Your task to perform on an android device: see tabs open on other devices in the chrome app Image 0: 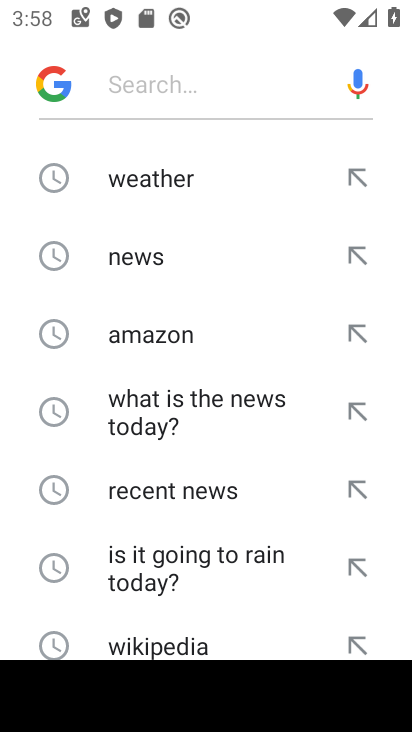
Step 0: press home button
Your task to perform on an android device: see tabs open on other devices in the chrome app Image 1: 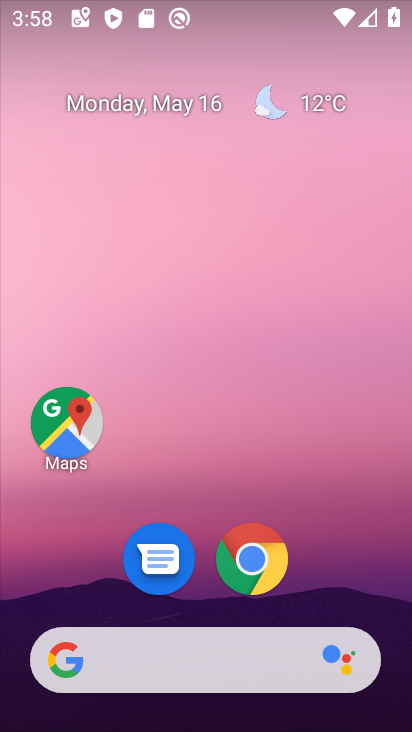
Step 1: drag from (327, 568) to (368, 194)
Your task to perform on an android device: see tabs open on other devices in the chrome app Image 2: 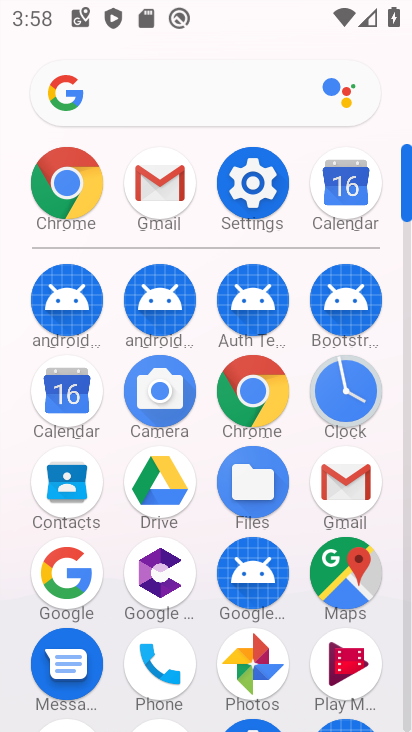
Step 2: click (76, 197)
Your task to perform on an android device: see tabs open on other devices in the chrome app Image 3: 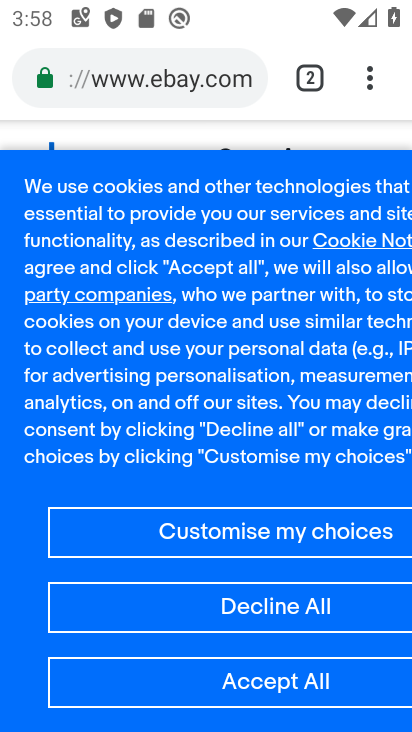
Step 3: click (380, 79)
Your task to perform on an android device: see tabs open on other devices in the chrome app Image 4: 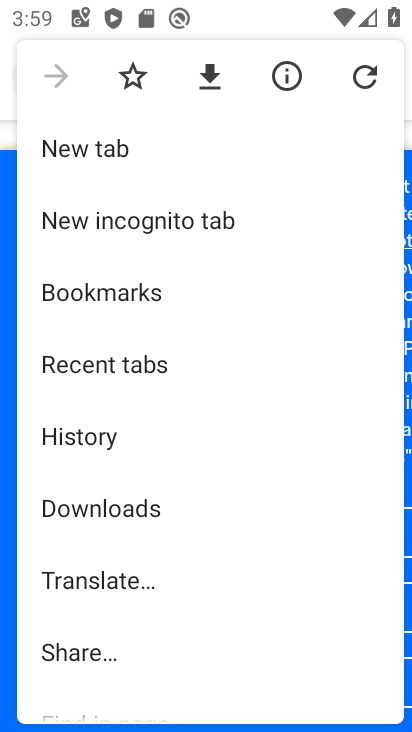
Step 4: drag from (193, 572) to (229, 126)
Your task to perform on an android device: see tabs open on other devices in the chrome app Image 5: 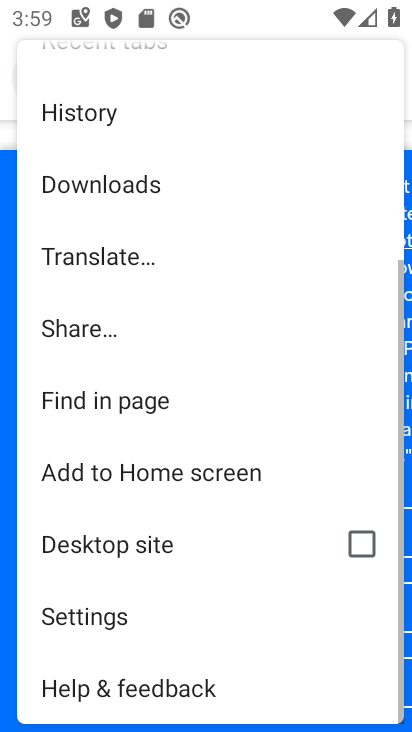
Step 5: click (116, 609)
Your task to perform on an android device: see tabs open on other devices in the chrome app Image 6: 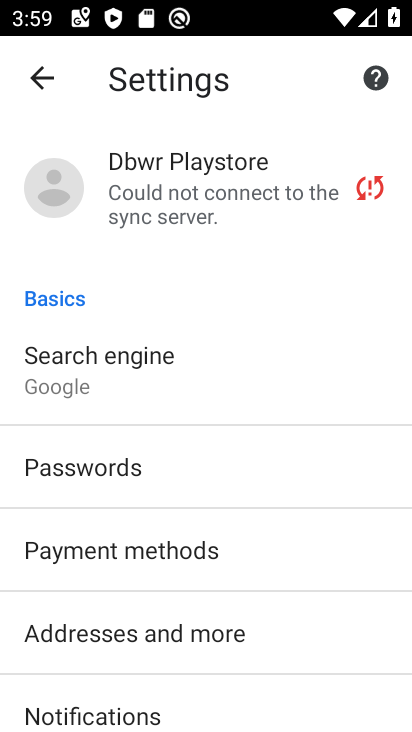
Step 6: drag from (200, 629) to (232, 423)
Your task to perform on an android device: see tabs open on other devices in the chrome app Image 7: 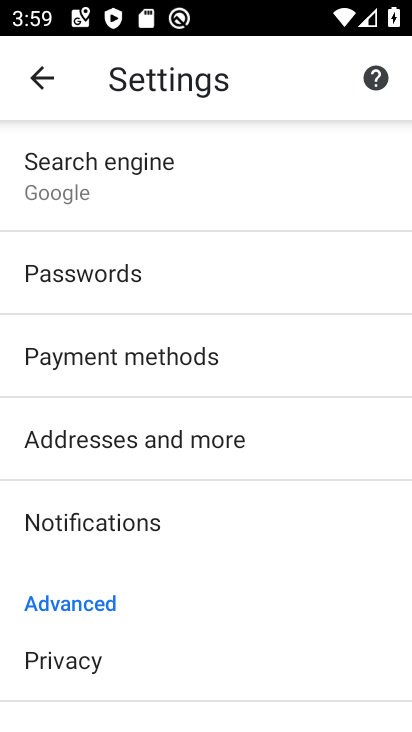
Step 7: click (45, 91)
Your task to perform on an android device: see tabs open on other devices in the chrome app Image 8: 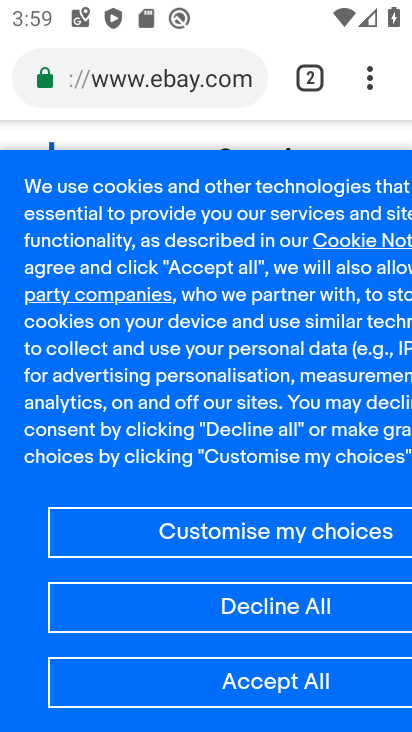
Step 8: click (384, 81)
Your task to perform on an android device: see tabs open on other devices in the chrome app Image 9: 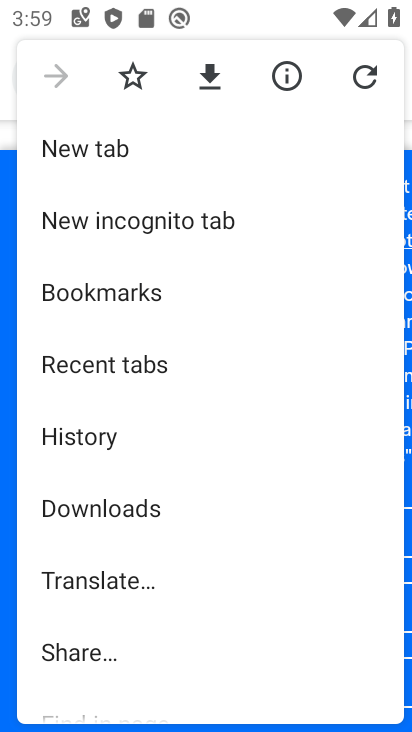
Step 9: click (173, 380)
Your task to perform on an android device: see tabs open on other devices in the chrome app Image 10: 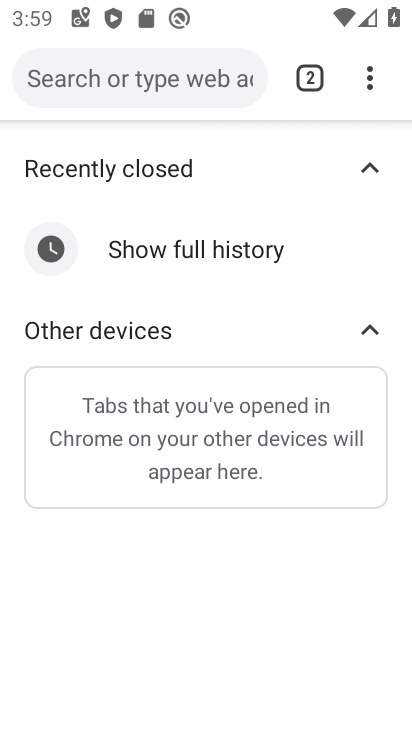
Step 10: task complete